Your task to perform on an android device: delete location history Image 0: 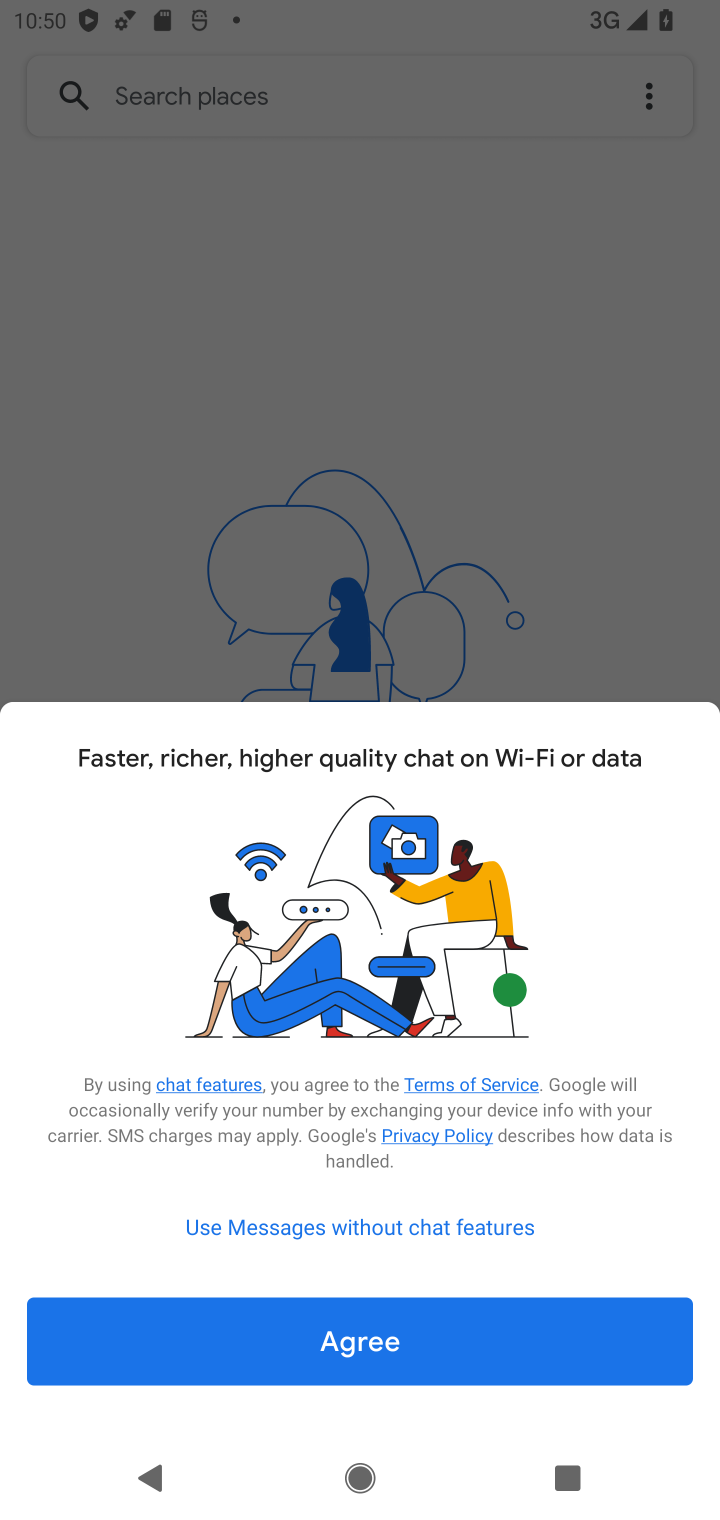
Step 0: press home button
Your task to perform on an android device: delete location history Image 1: 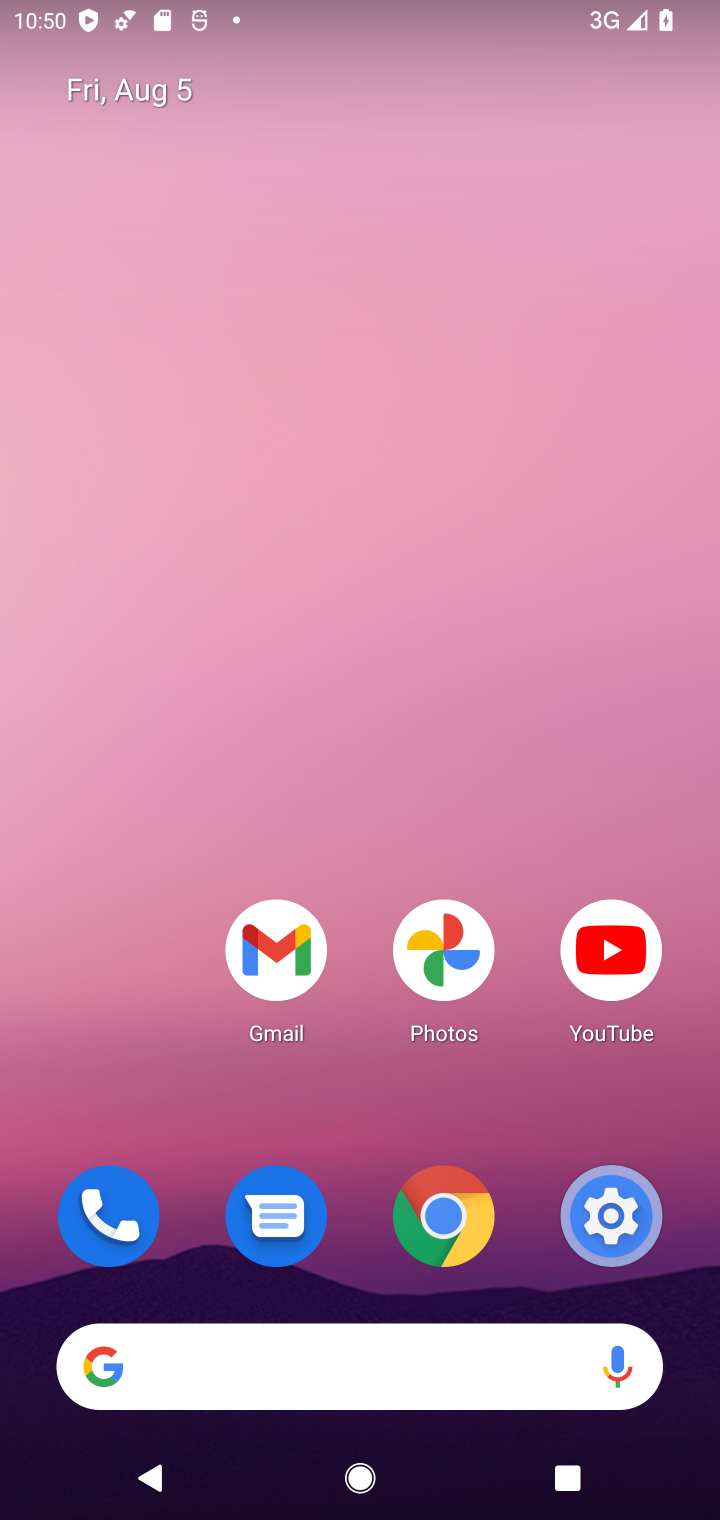
Step 1: drag from (302, 1347) to (289, 37)
Your task to perform on an android device: delete location history Image 2: 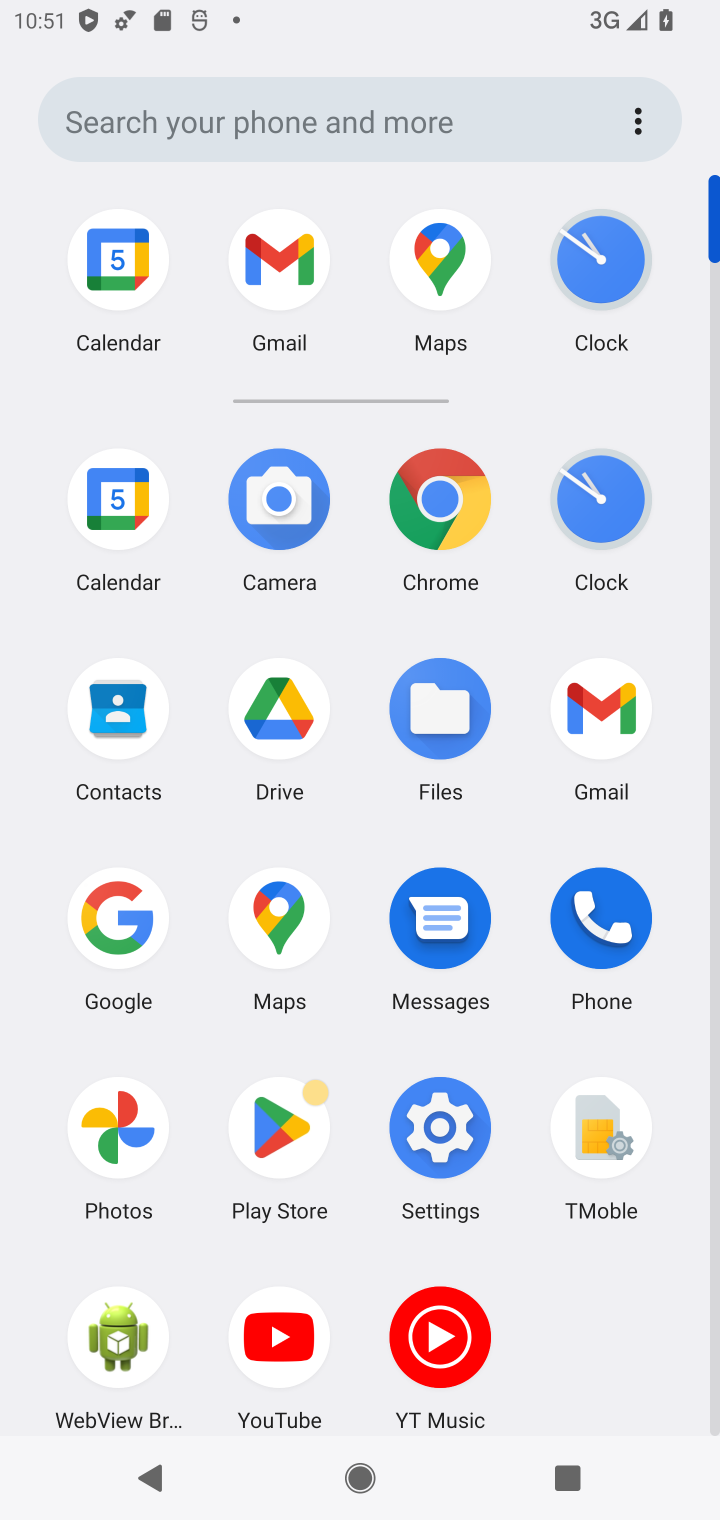
Step 2: click (286, 921)
Your task to perform on an android device: delete location history Image 3: 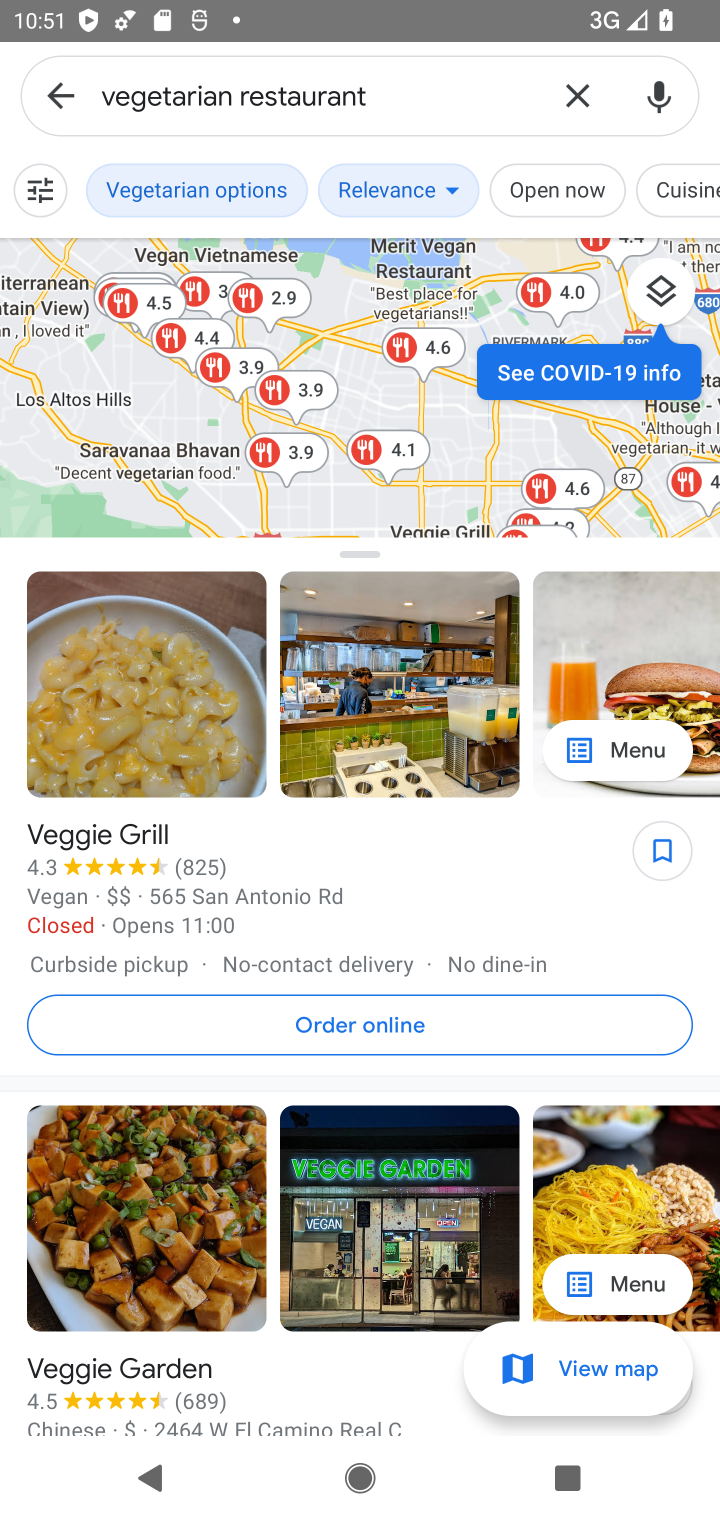
Step 3: press back button
Your task to perform on an android device: delete location history Image 4: 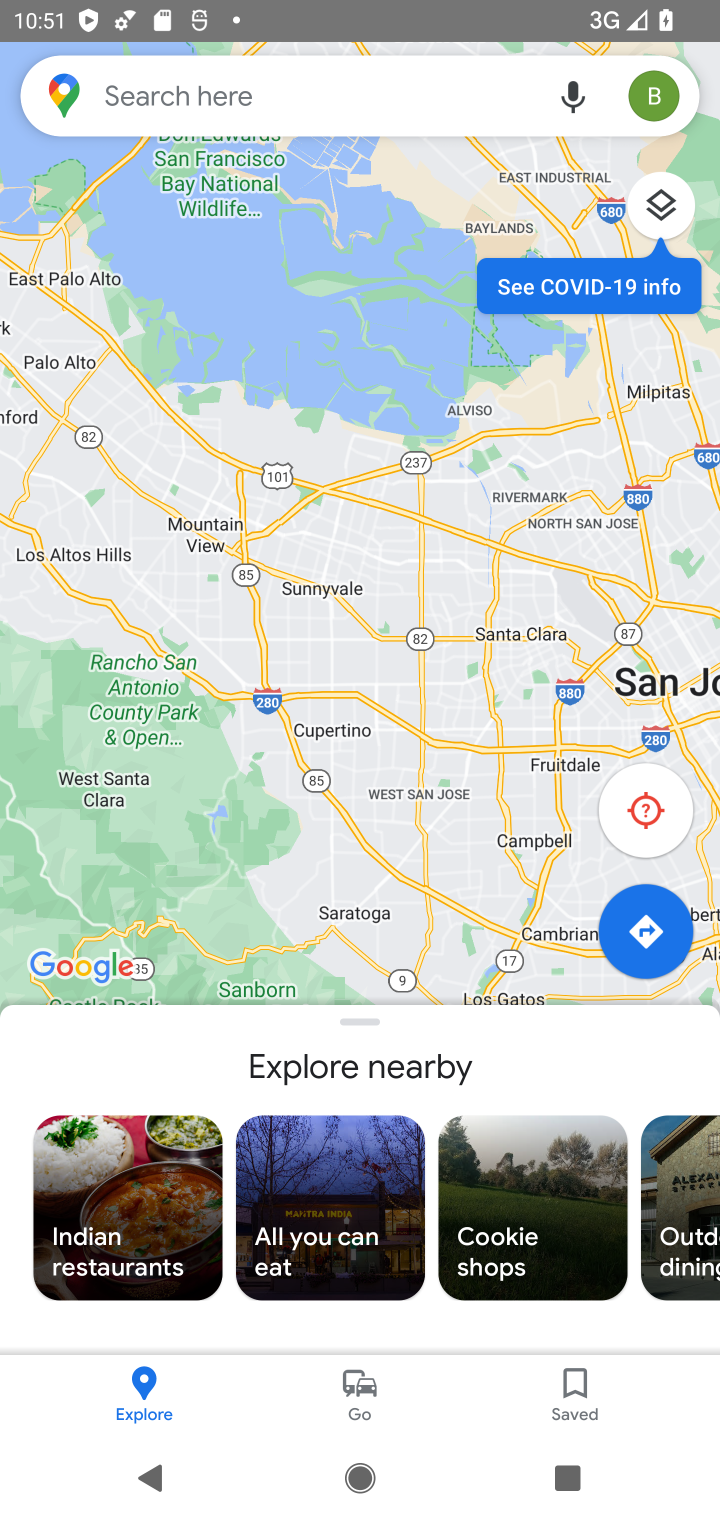
Step 4: click (657, 97)
Your task to perform on an android device: delete location history Image 5: 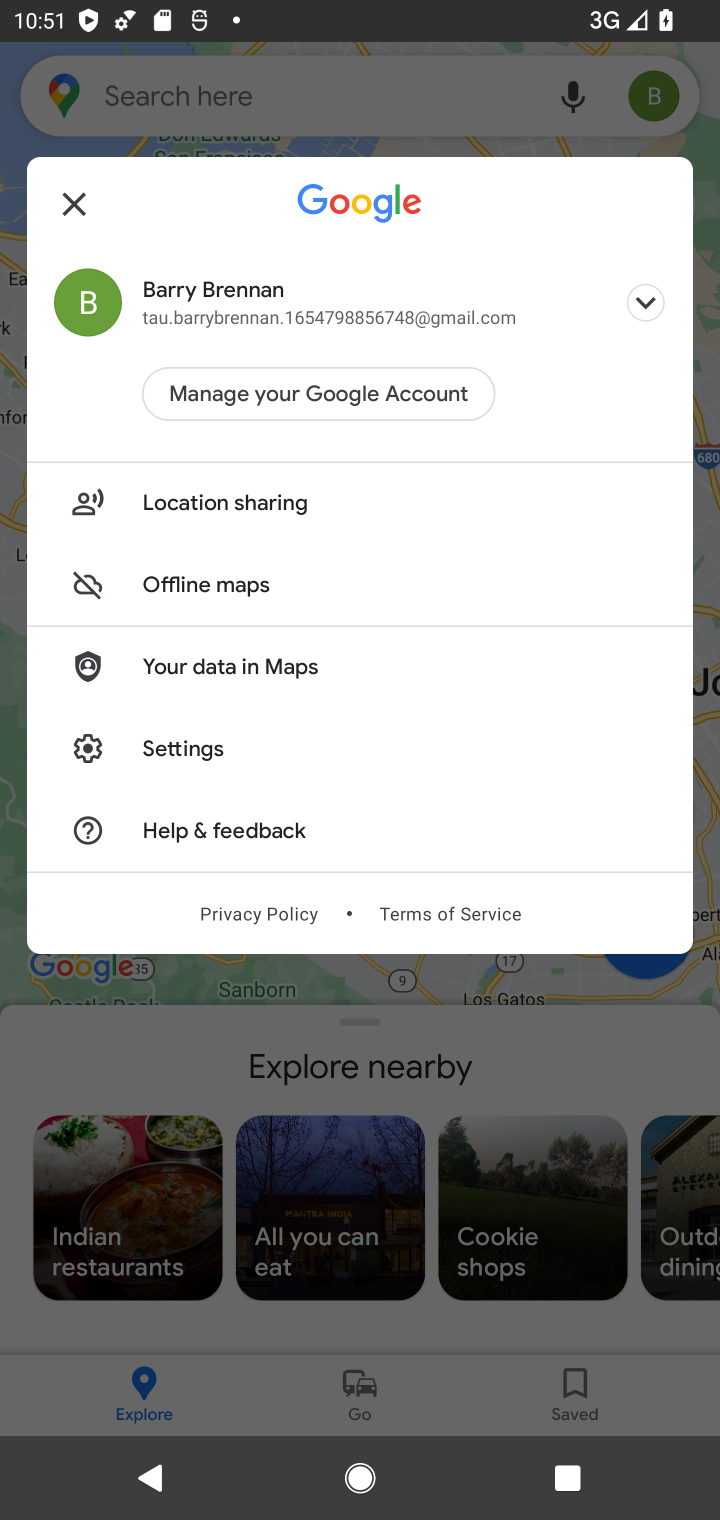
Step 5: click (280, 1024)
Your task to perform on an android device: delete location history Image 6: 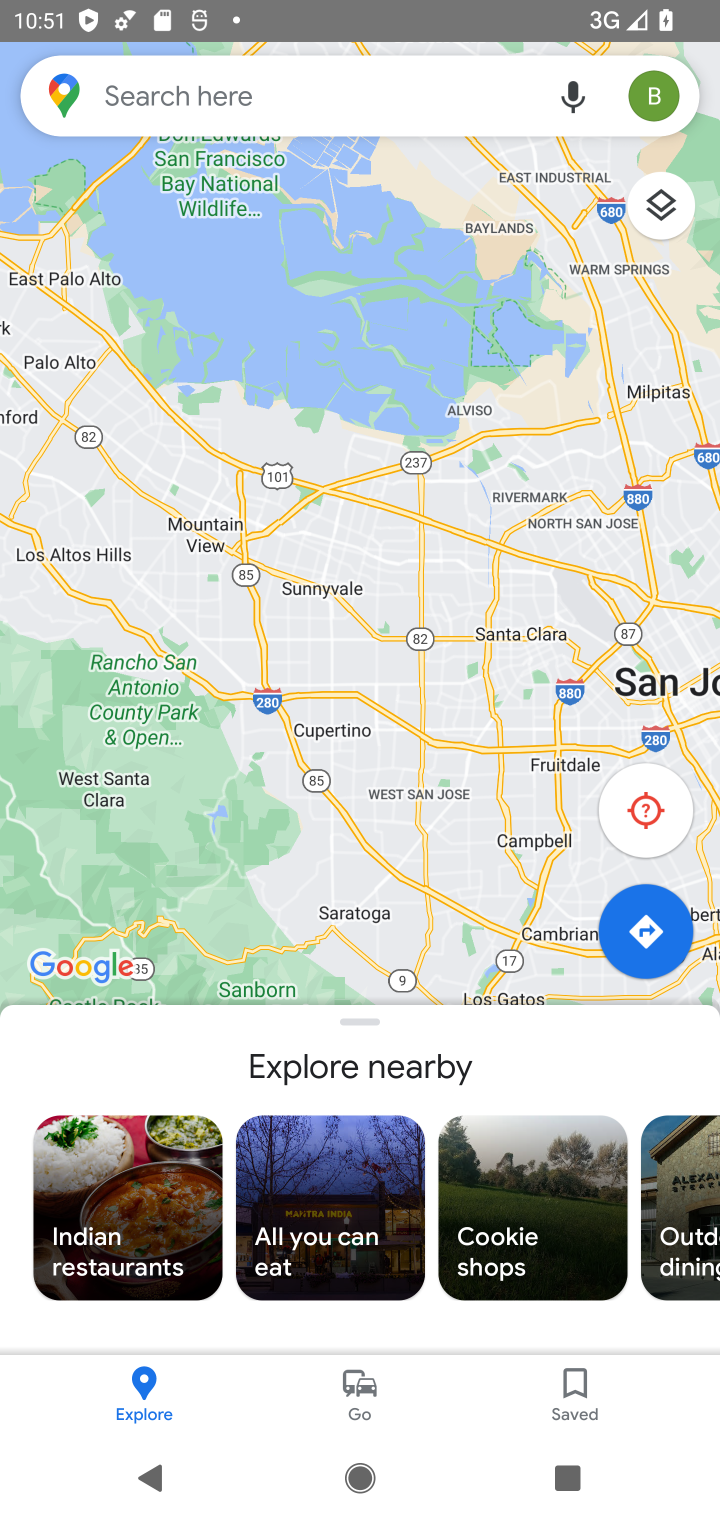
Step 6: click (665, 81)
Your task to perform on an android device: delete location history Image 7: 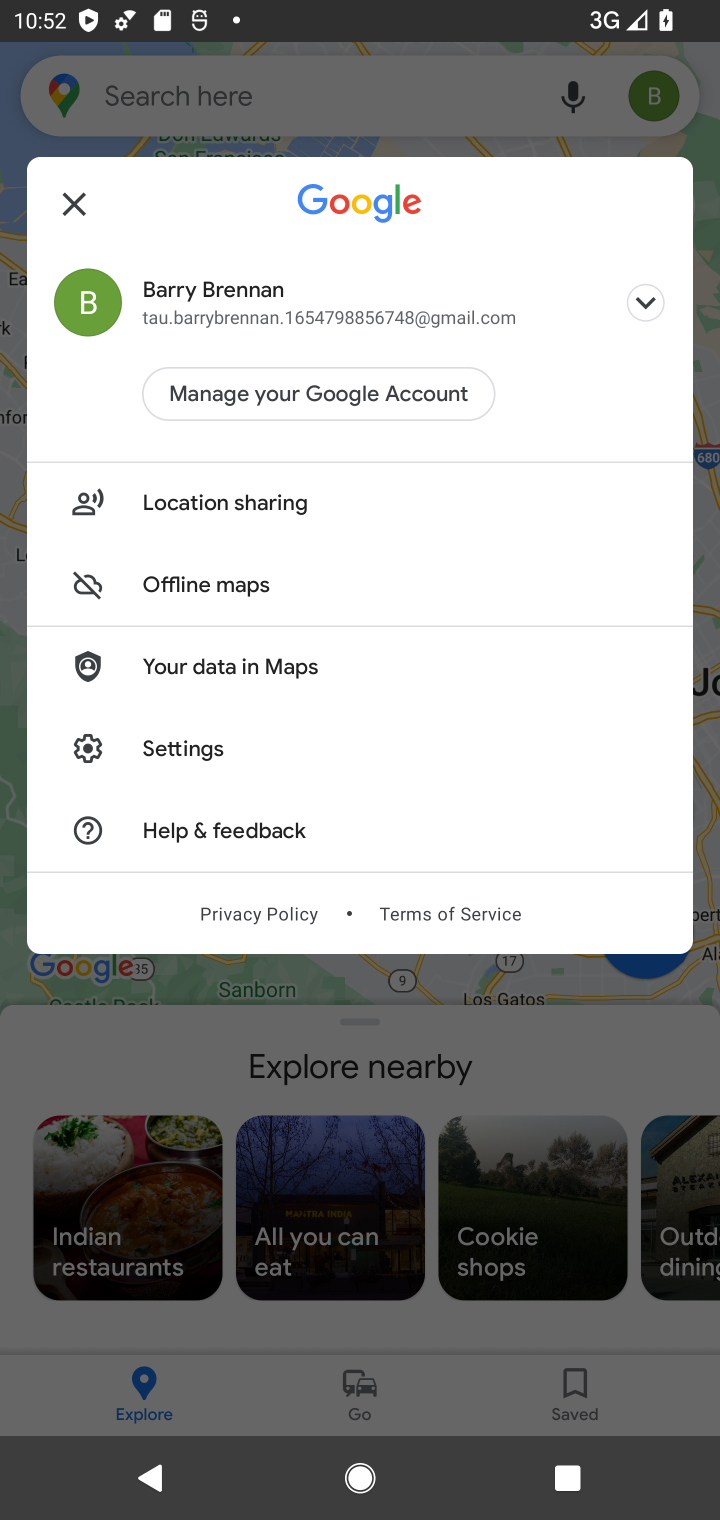
Step 7: click (162, 739)
Your task to perform on an android device: delete location history Image 8: 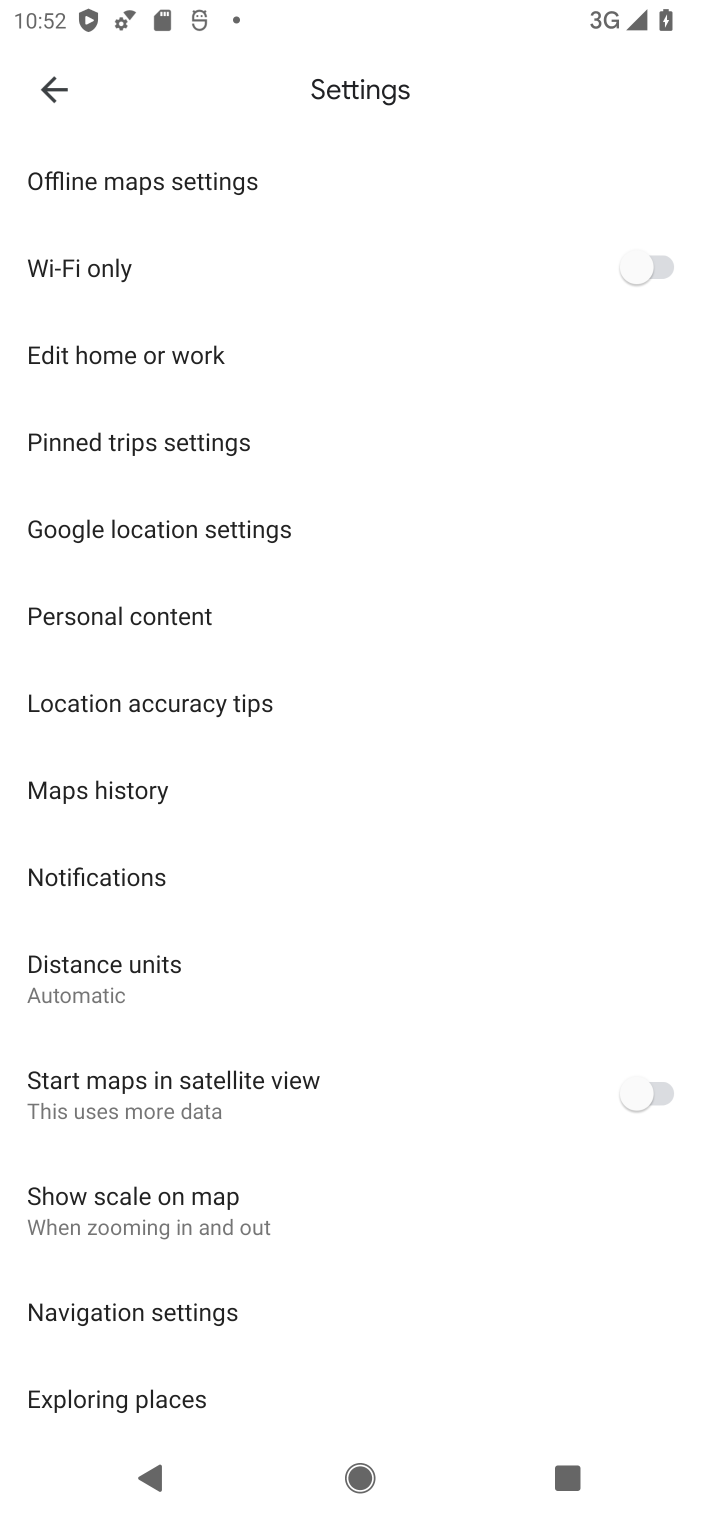
Step 8: press back button
Your task to perform on an android device: delete location history Image 9: 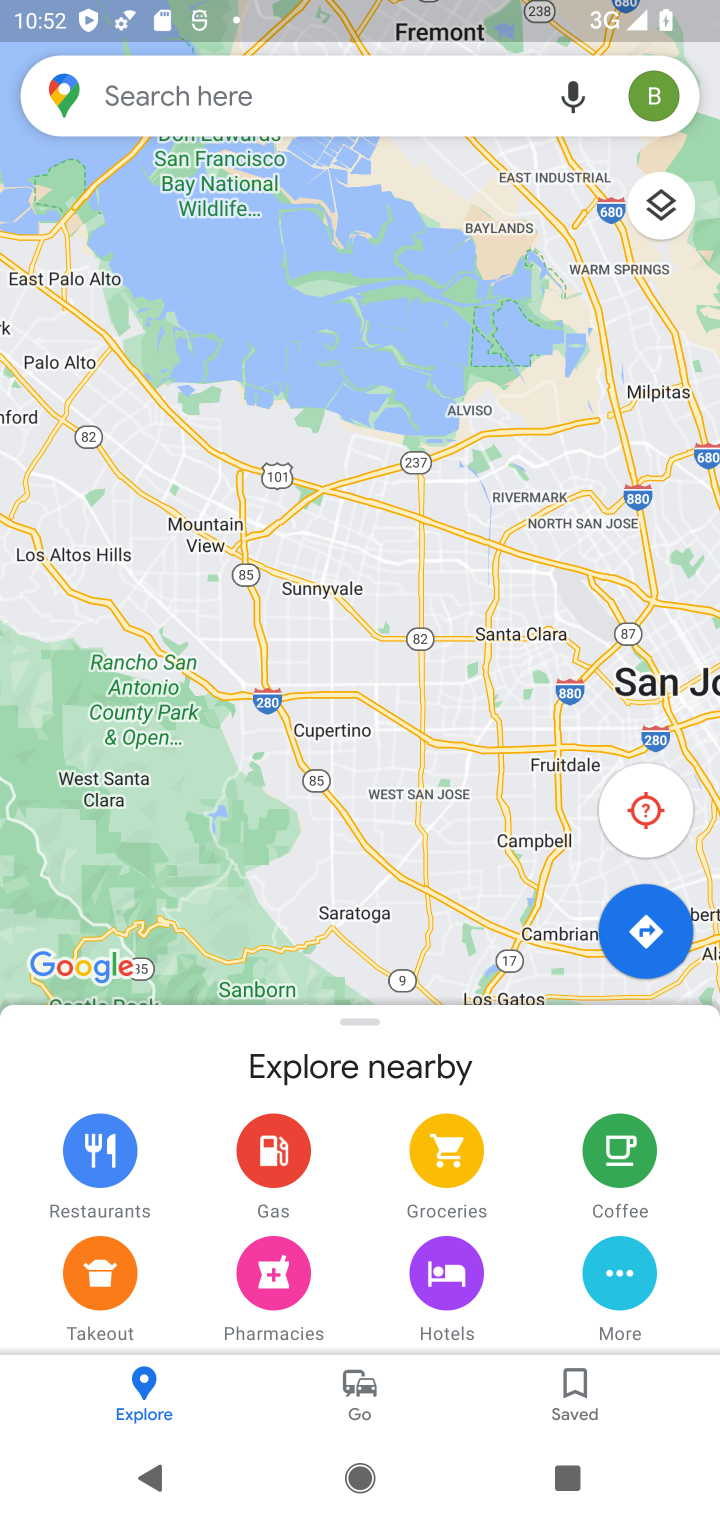
Step 9: click (652, 90)
Your task to perform on an android device: delete location history Image 10: 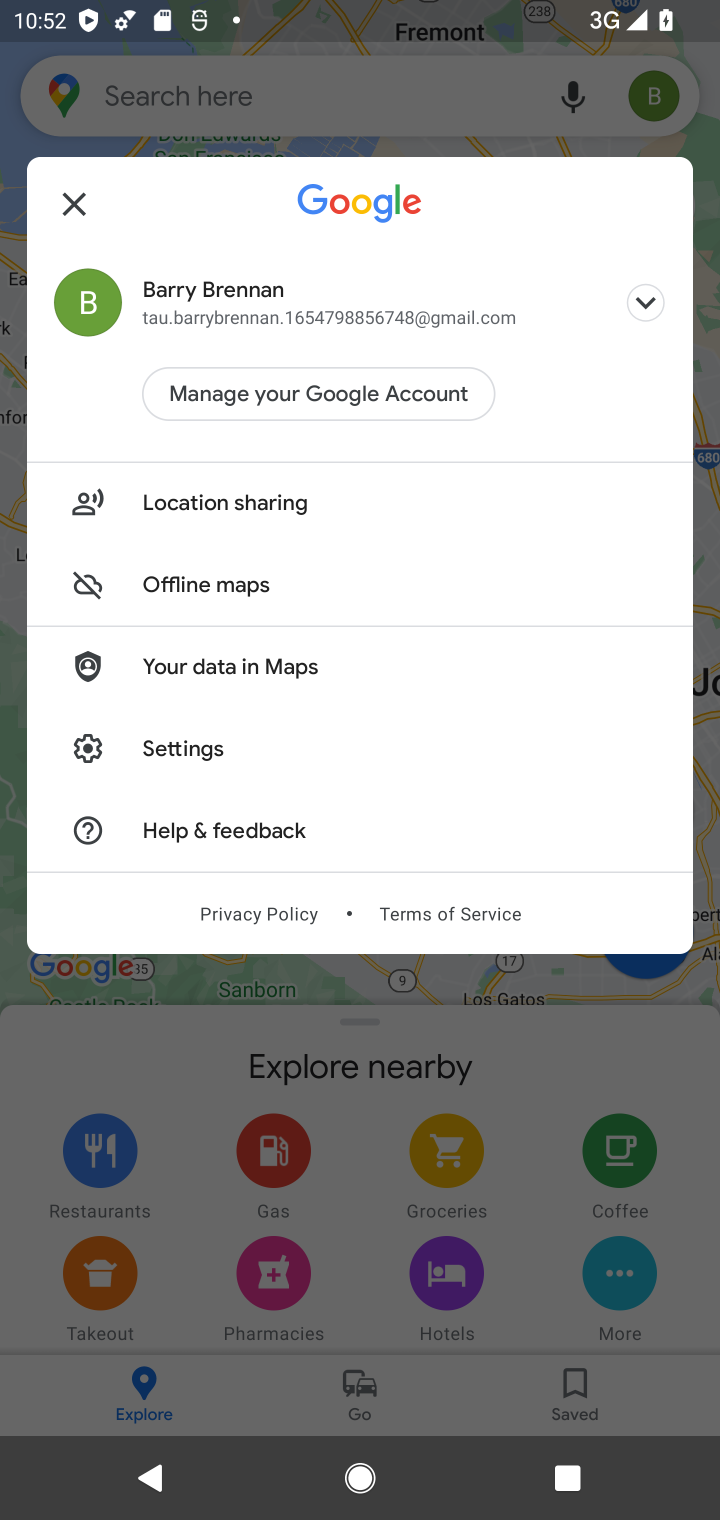
Step 10: click (275, 502)
Your task to perform on an android device: delete location history Image 11: 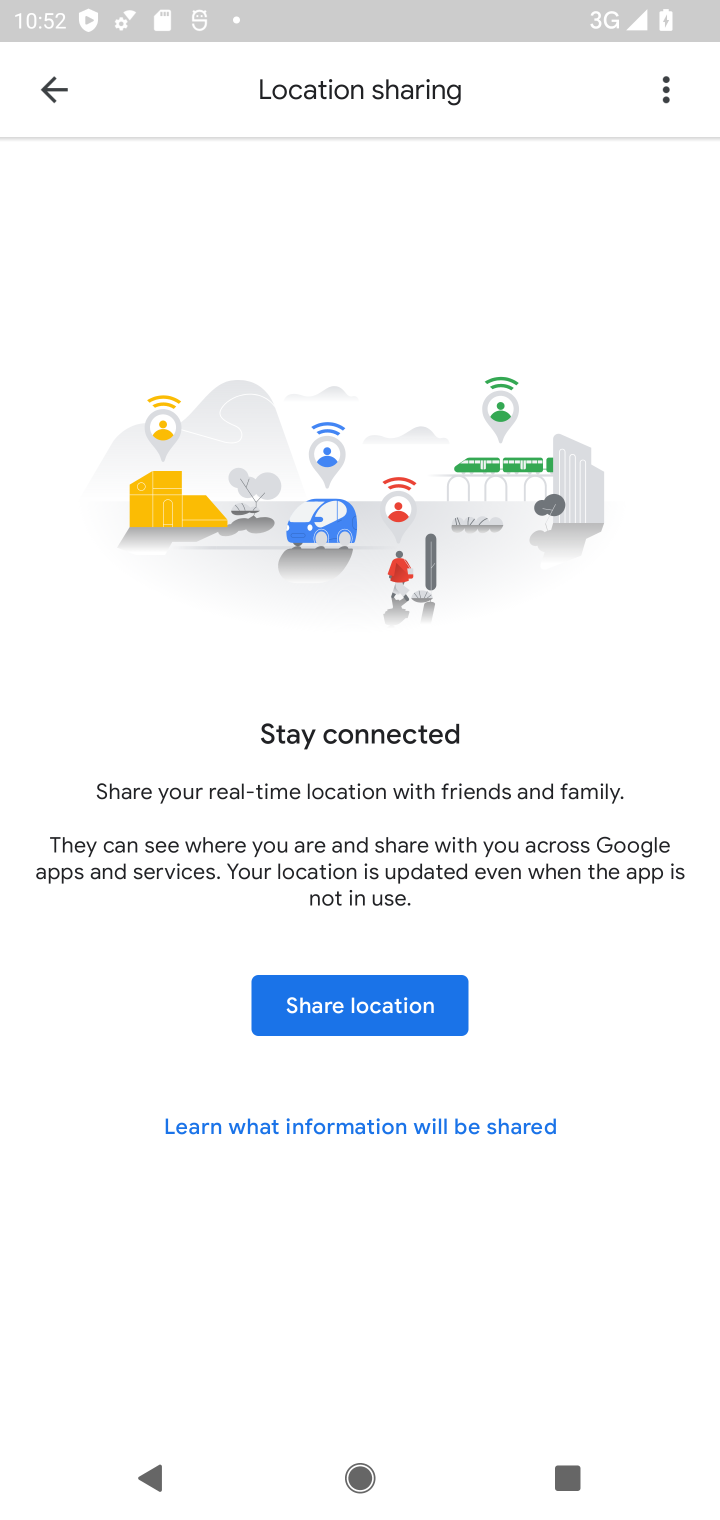
Step 11: task complete